Your task to perform on an android device: turn on sleep mode Image 0: 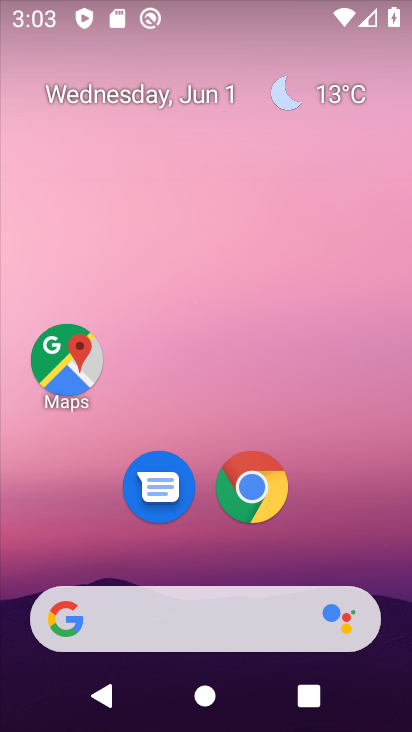
Step 0: drag from (360, 523) to (262, 138)
Your task to perform on an android device: turn on sleep mode Image 1: 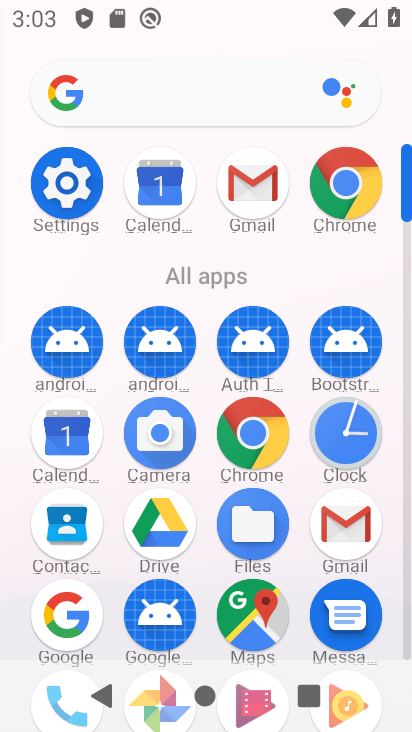
Step 1: click (88, 185)
Your task to perform on an android device: turn on sleep mode Image 2: 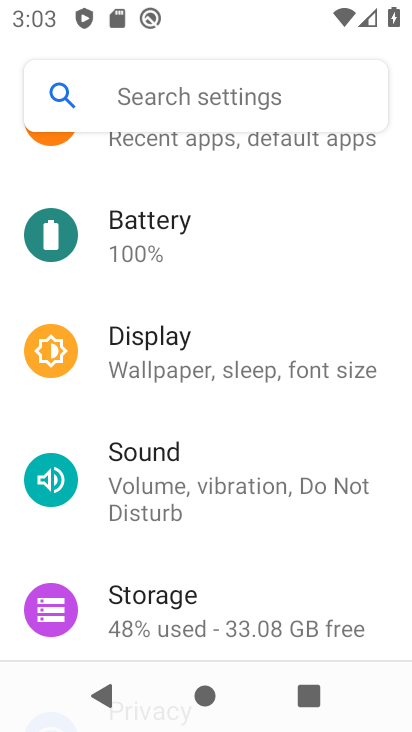
Step 2: click (202, 343)
Your task to perform on an android device: turn on sleep mode Image 3: 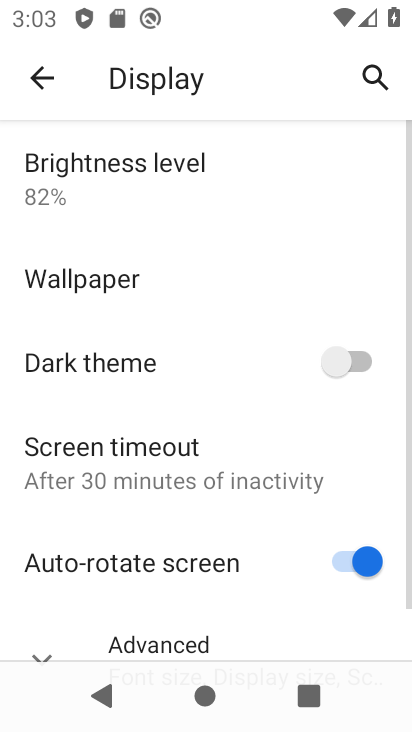
Step 3: drag from (240, 518) to (202, 192)
Your task to perform on an android device: turn on sleep mode Image 4: 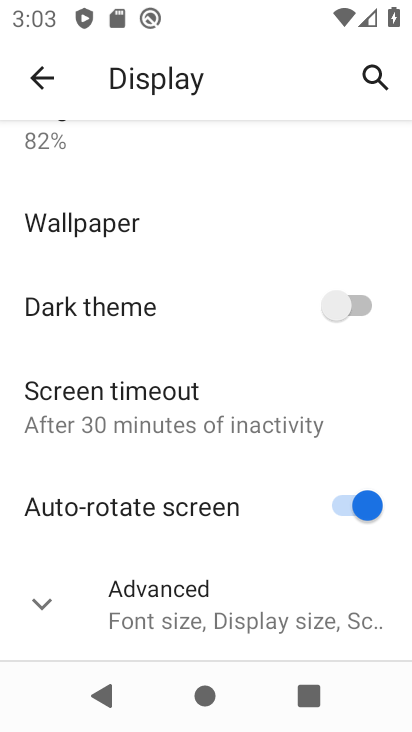
Step 4: click (305, 608)
Your task to perform on an android device: turn on sleep mode Image 5: 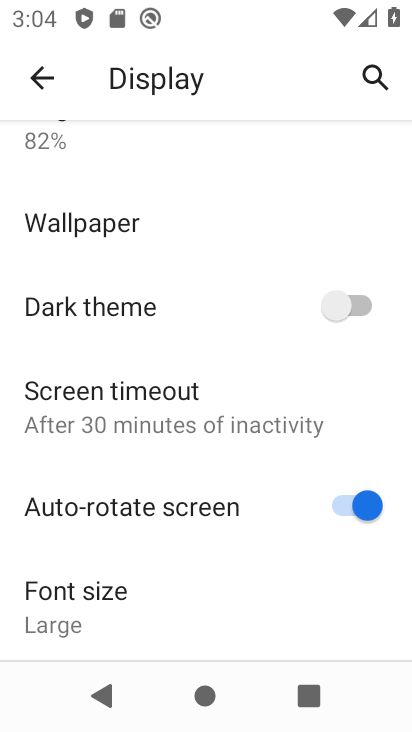
Step 5: task complete